Your task to perform on an android device: Go to location settings Image 0: 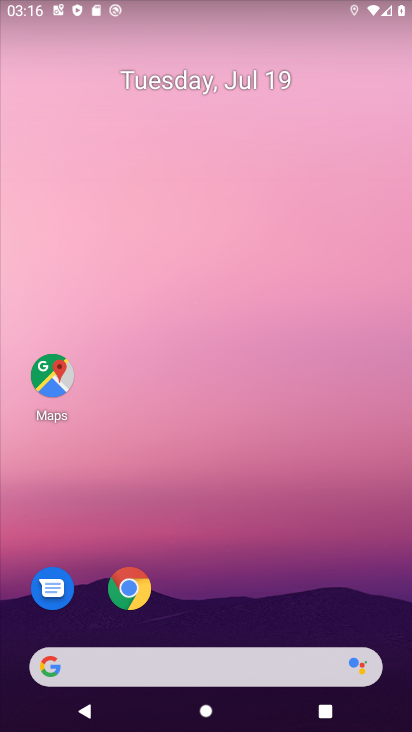
Step 0: drag from (243, 574) to (217, 137)
Your task to perform on an android device: Go to location settings Image 1: 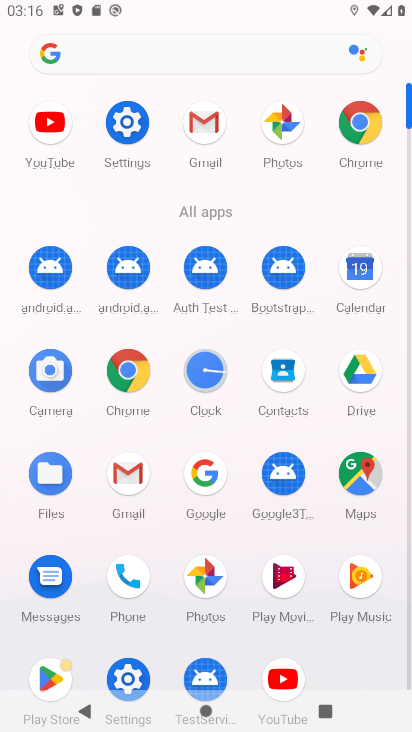
Step 1: click (123, 120)
Your task to perform on an android device: Go to location settings Image 2: 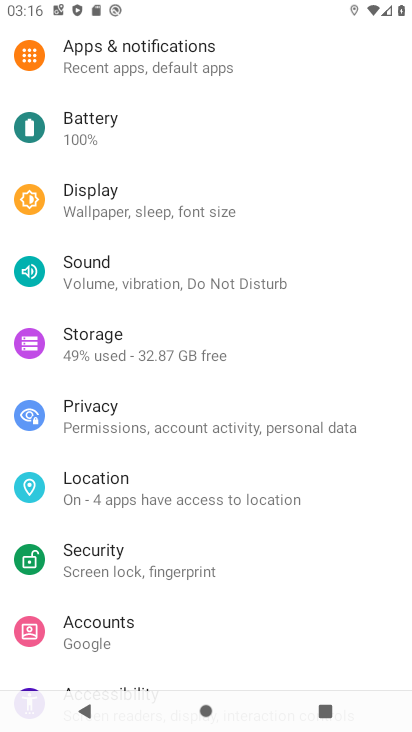
Step 2: click (103, 471)
Your task to perform on an android device: Go to location settings Image 3: 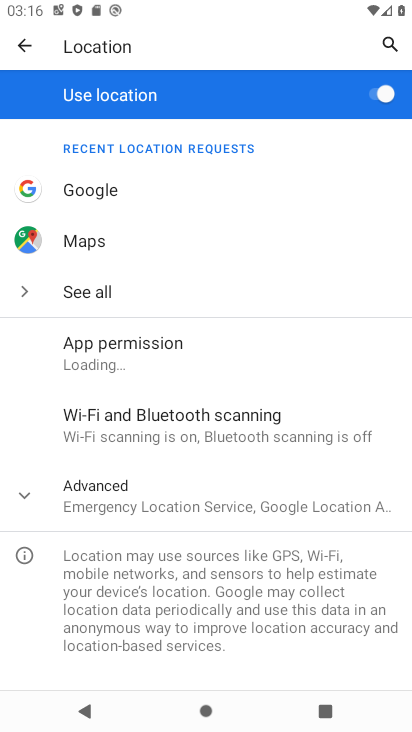
Step 3: task complete